Your task to perform on an android device: Search for Italian restaurants on Maps Image 0: 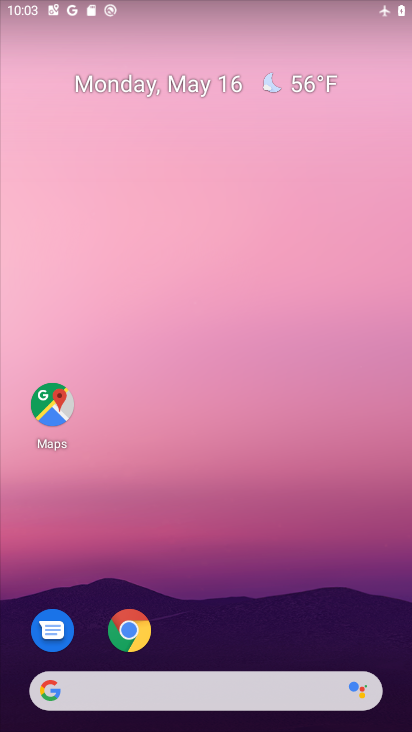
Step 0: click (57, 397)
Your task to perform on an android device: Search for Italian restaurants on Maps Image 1: 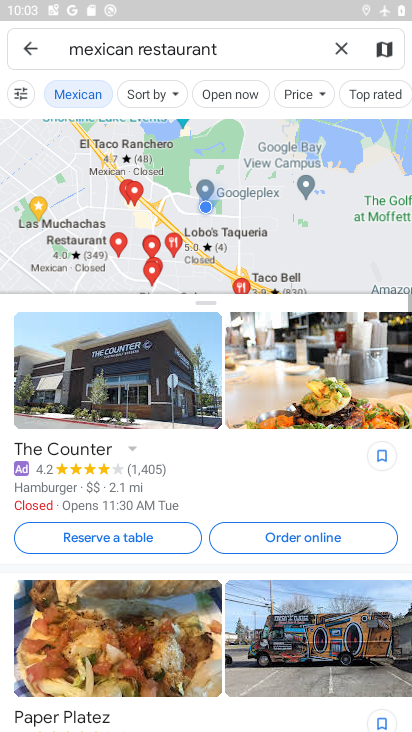
Step 1: click (336, 42)
Your task to perform on an android device: Search for Italian restaurants on Maps Image 2: 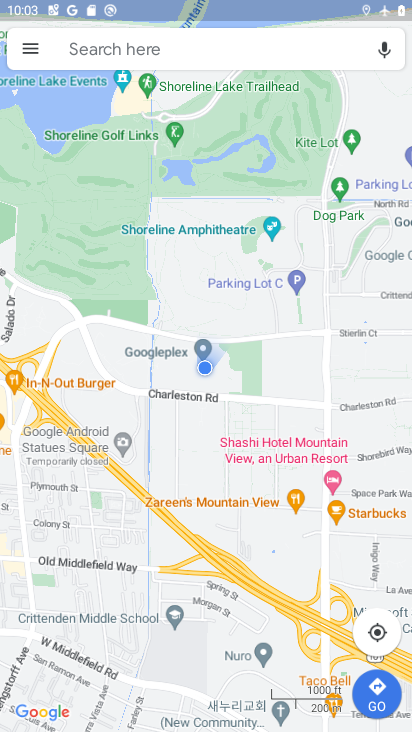
Step 2: click (278, 45)
Your task to perform on an android device: Search for Italian restaurants on Maps Image 3: 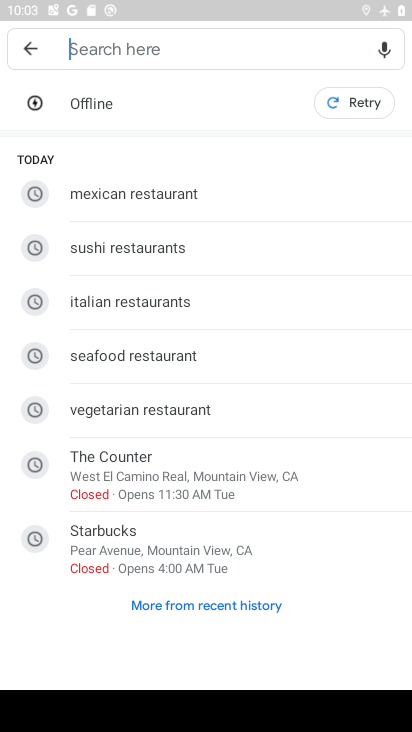
Step 3: click (159, 291)
Your task to perform on an android device: Search for Italian restaurants on Maps Image 4: 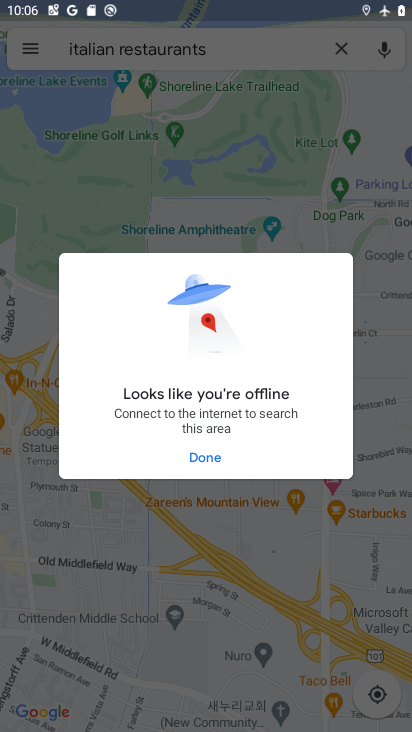
Step 4: task complete